Your task to perform on an android device: turn pop-ups off in chrome Image 0: 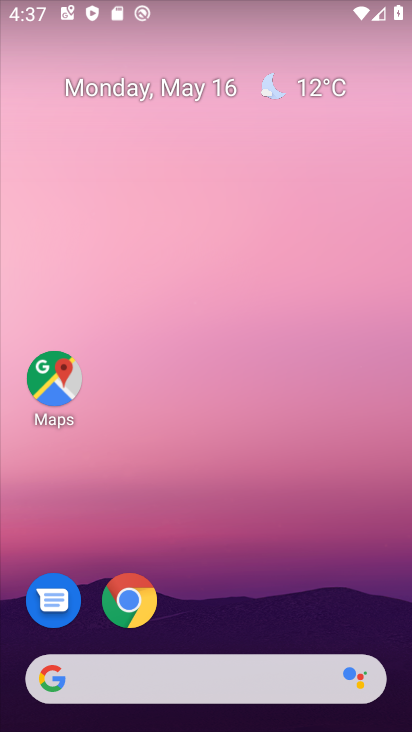
Step 0: click (129, 588)
Your task to perform on an android device: turn pop-ups off in chrome Image 1: 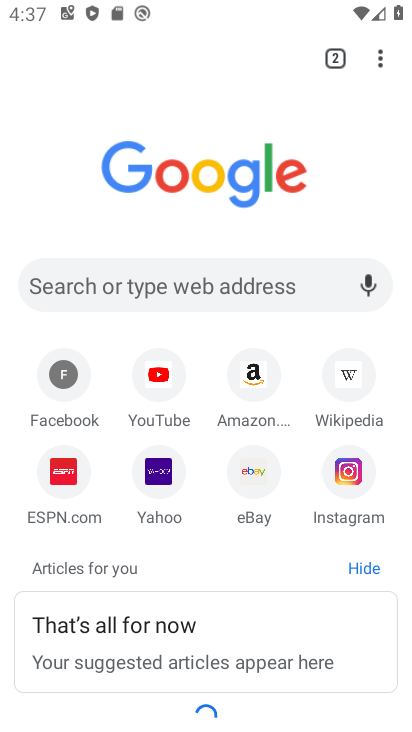
Step 1: click (382, 59)
Your task to perform on an android device: turn pop-ups off in chrome Image 2: 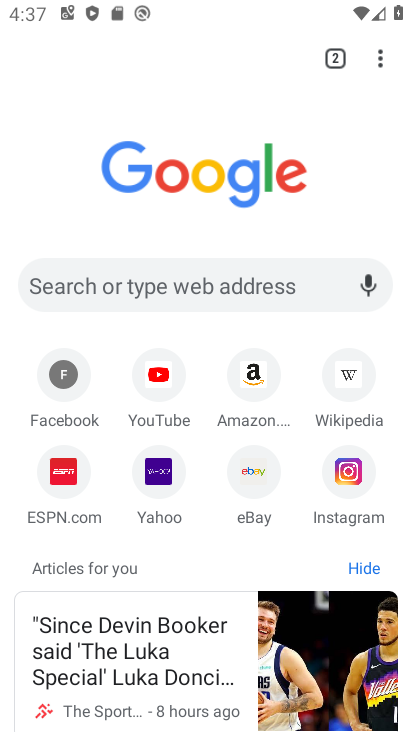
Step 2: click (376, 55)
Your task to perform on an android device: turn pop-ups off in chrome Image 3: 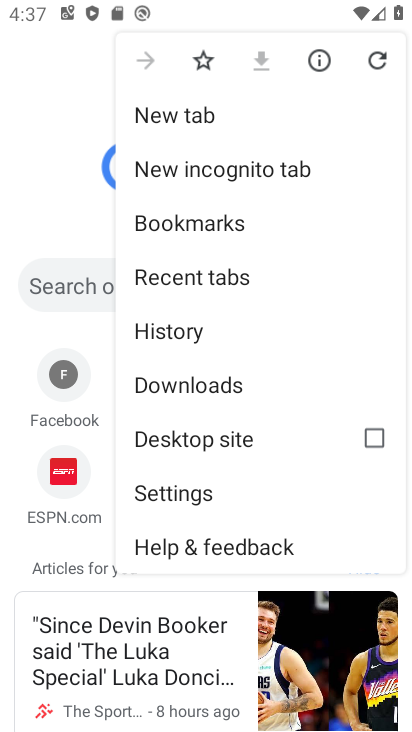
Step 3: drag from (191, 536) to (226, 149)
Your task to perform on an android device: turn pop-ups off in chrome Image 4: 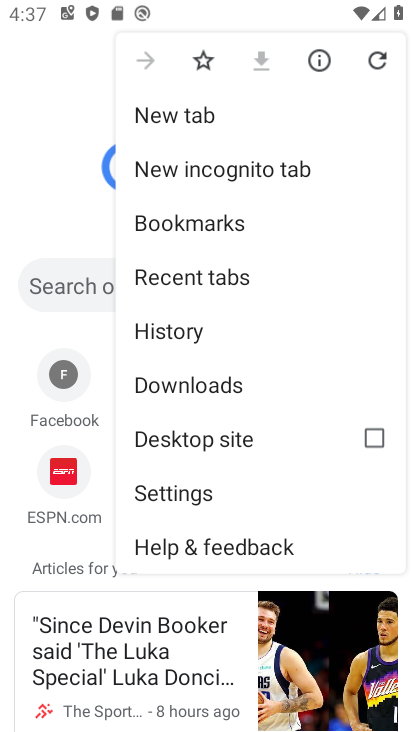
Step 4: click (192, 496)
Your task to perform on an android device: turn pop-ups off in chrome Image 5: 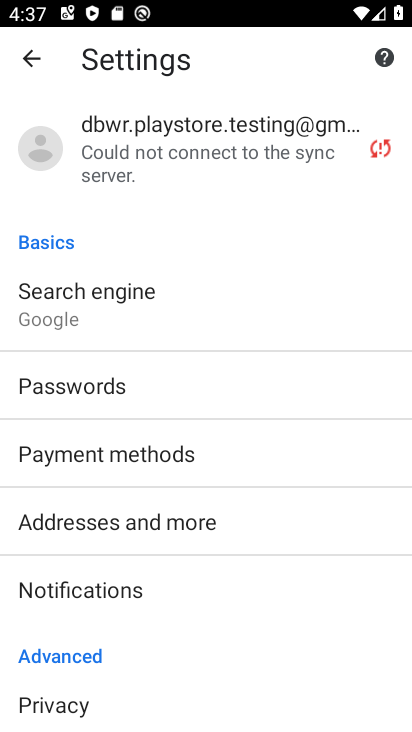
Step 5: drag from (106, 711) to (181, 262)
Your task to perform on an android device: turn pop-ups off in chrome Image 6: 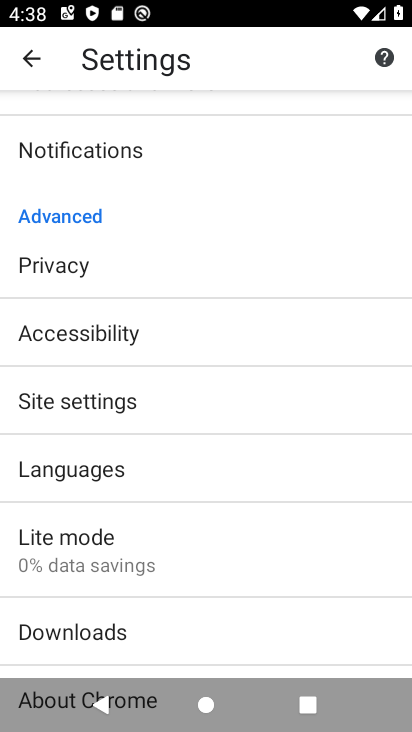
Step 6: drag from (142, 608) to (160, 259)
Your task to perform on an android device: turn pop-ups off in chrome Image 7: 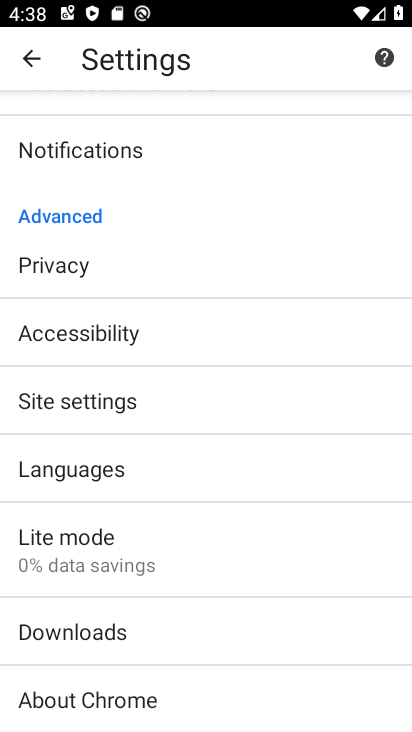
Step 7: click (109, 397)
Your task to perform on an android device: turn pop-ups off in chrome Image 8: 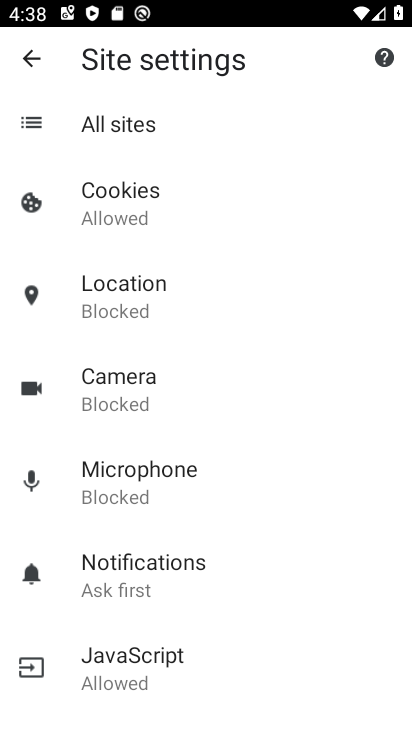
Step 8: drag from (180, 707) to (226, 275)
Your task to perform on an android device: turn pop-ups off in chrome Image 9: 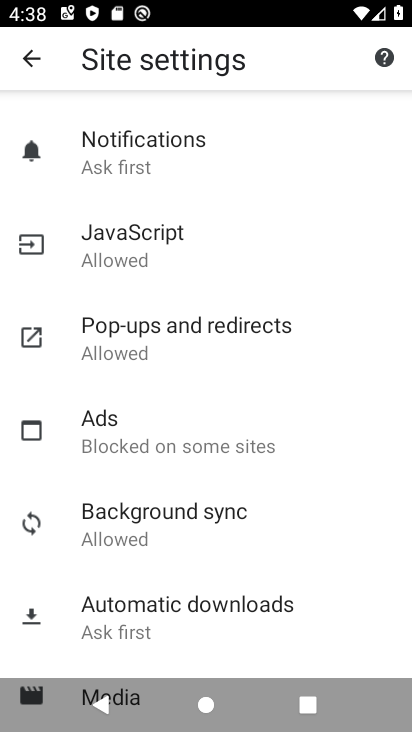
Step 9: drag from (182, 624) to (204, 253)
Your task to perform on an android device: turn pop-ups off in chrome Image 10: 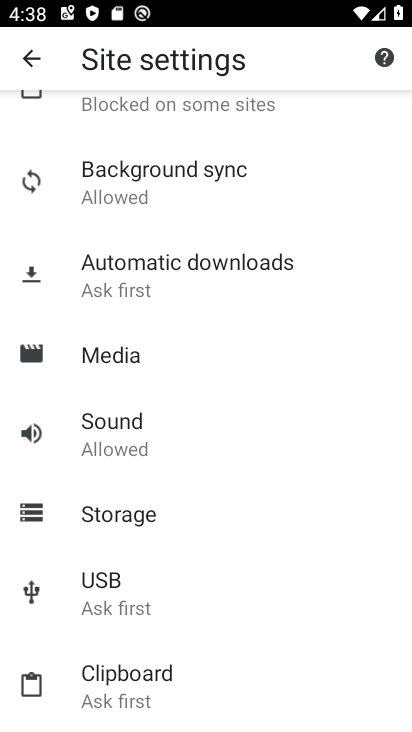
Step 10: drag from (217, 144) to (154, 513)
Your task to perform on an android device: turn pop-ups off in chrome Image 11: 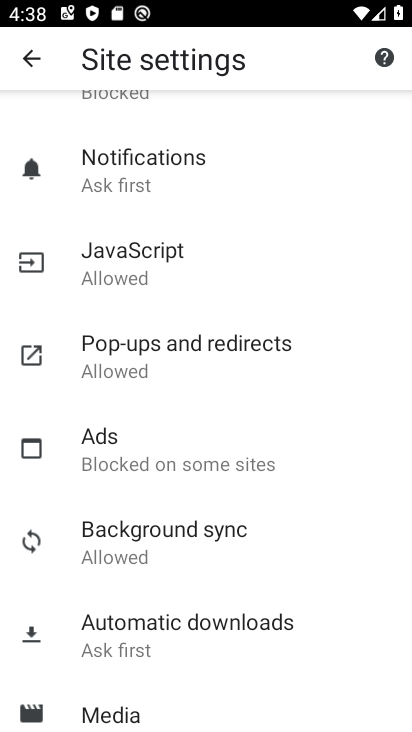
Step 11: drag from (143, 140) to (129, 470)
Your task to perform on an android device: turn pop-ups off in chrome Image 12: 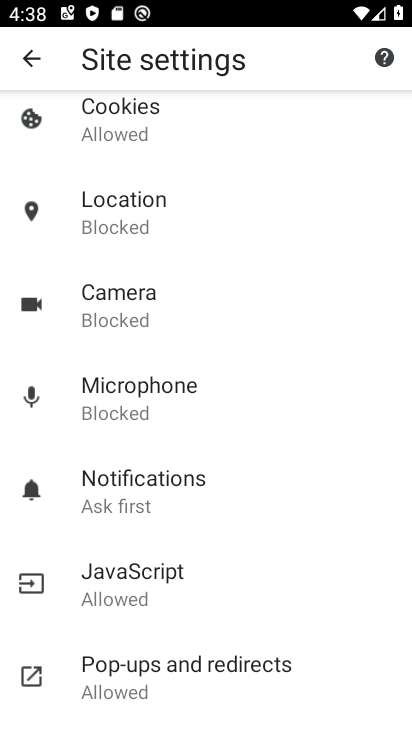
Step 12: click (149, 665)
Your task to perform on an android device: turn pop-ups off in chrome Image 13: 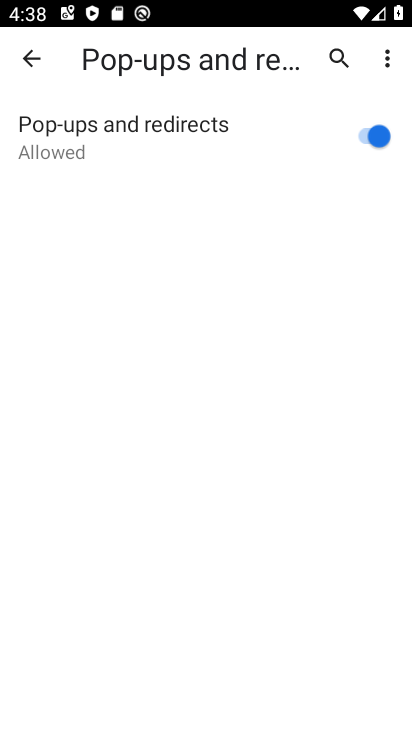
Step 13: click (365, 130)
Your task to perform on an android device: turn pop-ups off in chrome Image 14: 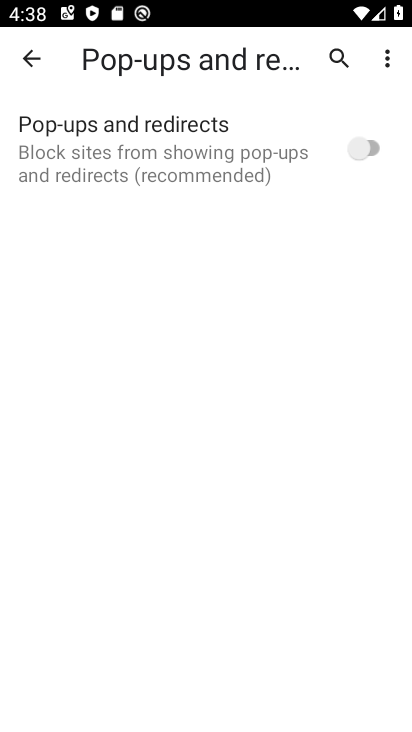
Step 14: task complete